Your task to perform on an android device: Go to Google maps Image 0: 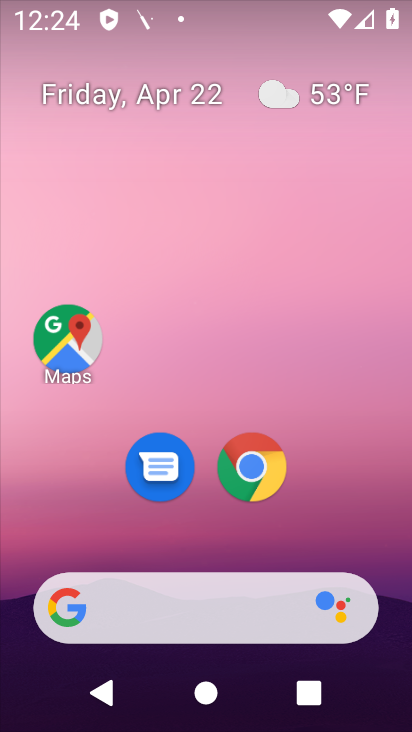
Step 0: click (69, 343)
Your task to perform on an android device: Go to Google maps Image 1: 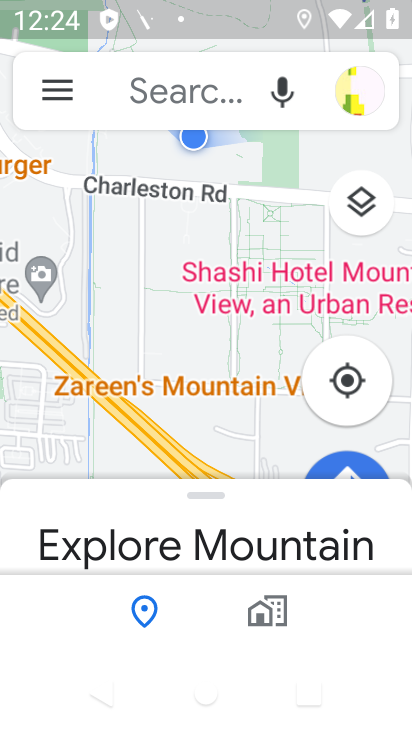
Step 1: task complete